Your task to perform on an android device: all mails in gmail Image 0: 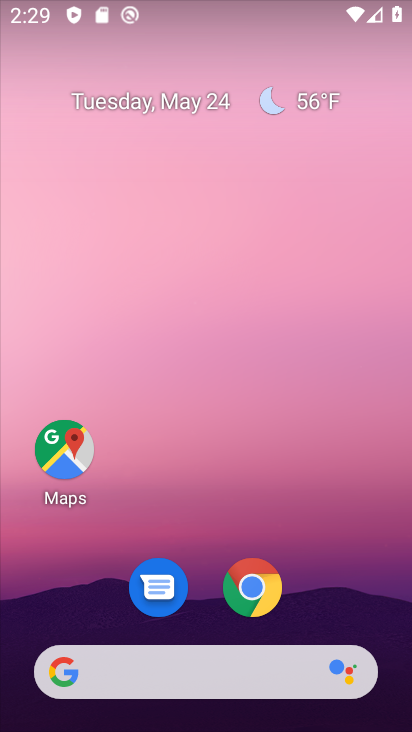
Step 0: drag from (241, 454) to (280, 287)
Your task to perform on an android device: all mails in gmail Image 1: 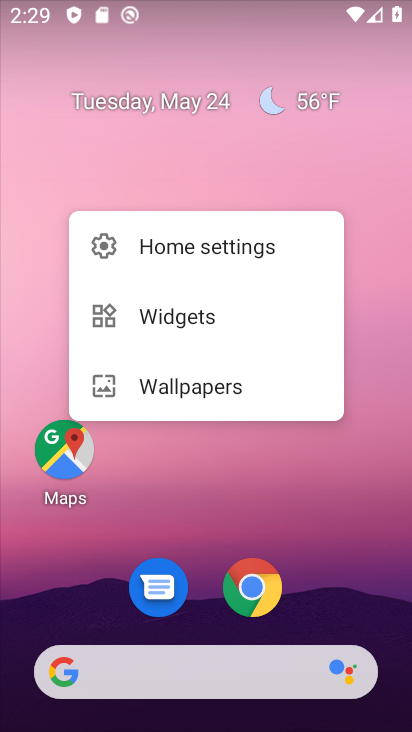
Step 1: drag from (208, 626) to (276, 266)
Your task to perform on an android device: all mails in gmail Image 2: 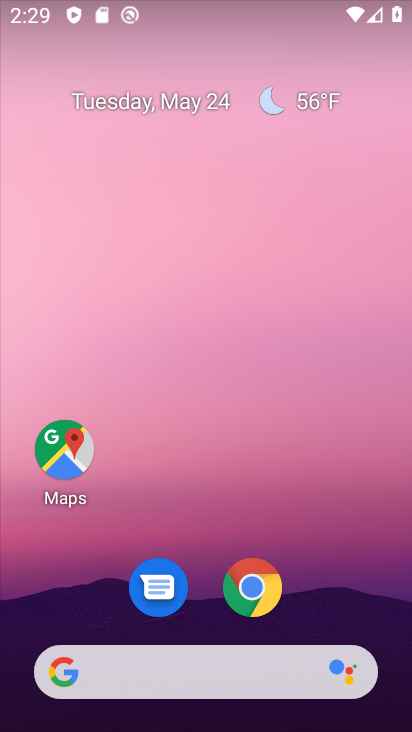
Step 2: drag from (197, 625) to (224, 250)
Your task to perform on an android device: all mails in gmail Image 3: 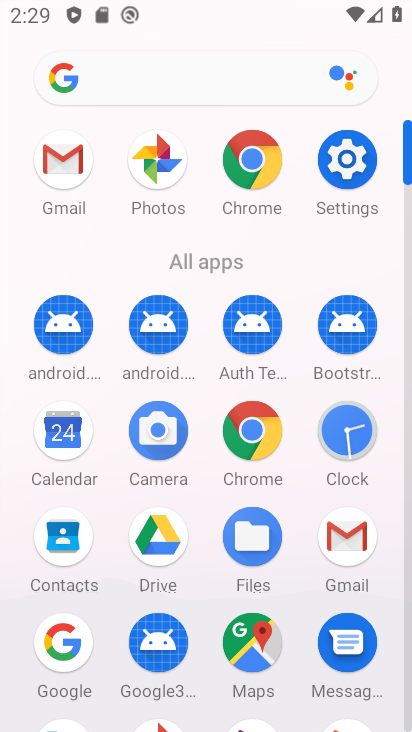
Step 3: click (66, 169)
Your task to perform on an android device: all mails in gmail Image 4: 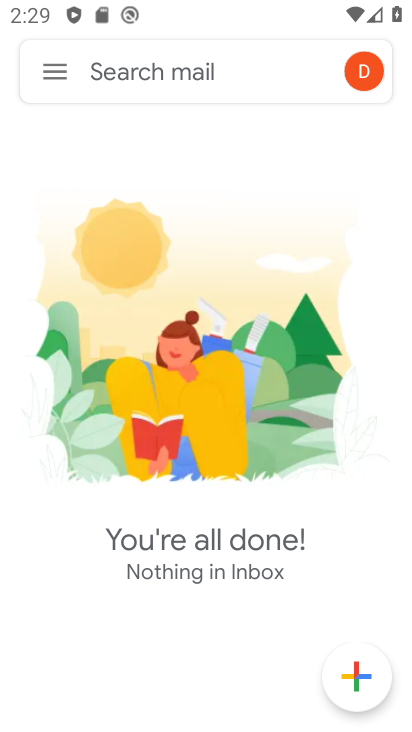
Step 4: click (45, 86)
Your task to perform on an android device: all mails in gmail Image 5: 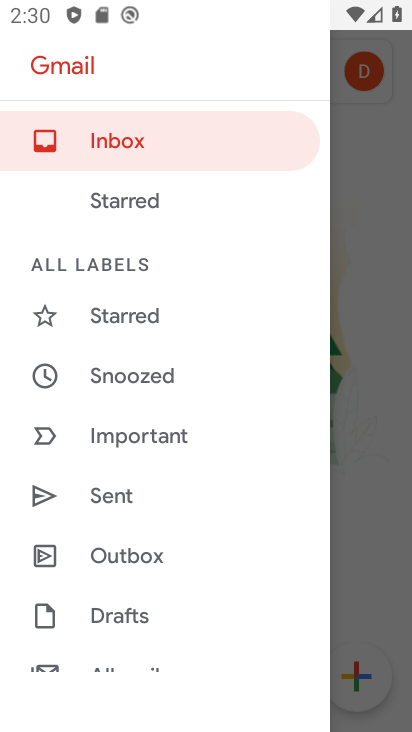
Step 5: drag from (77, 626) to (182, 184)
Your task to perform on an android device: all mails in gmail Image 6: 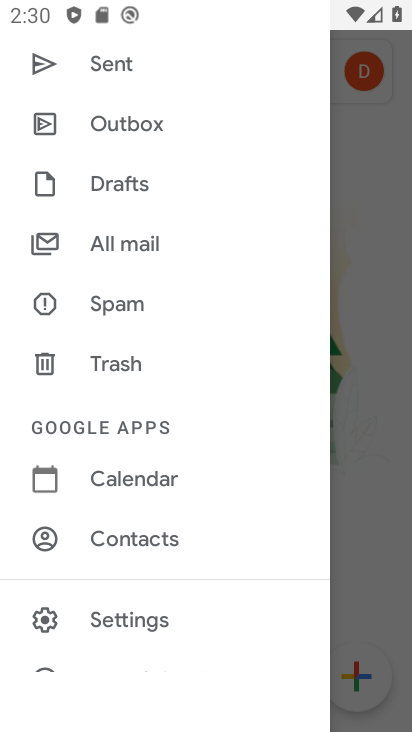
Step 6: click (131, 266)
Your task to perform on an android device: all mails in gmail Image 7: 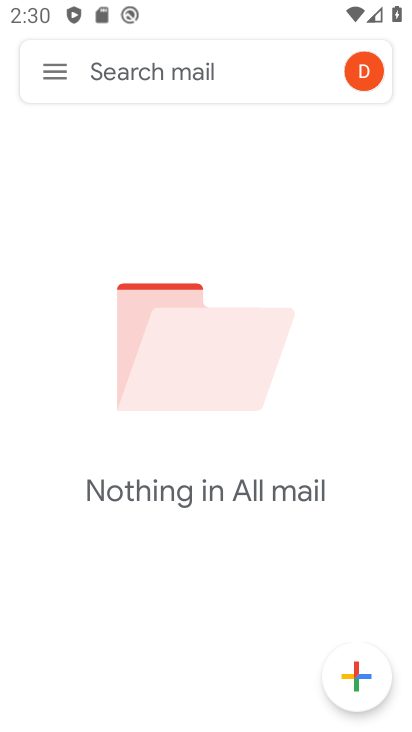
Step 7: task complete